Your task to perform on an android device: Search for macbook on newegg, select the first entry, add it to the cart, then select checkout. Image 0: 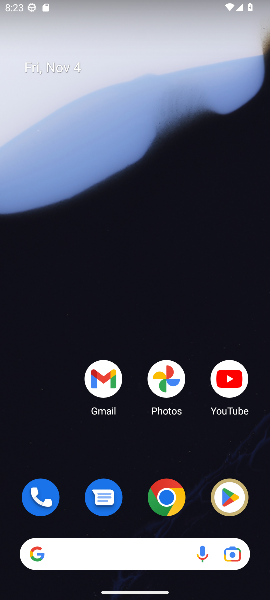
Step 0: click (168, 504)
Your task to perform on an android device: Search for macbook on newegg, select the first entry, add it to the cart, then select checkout. Image 1: 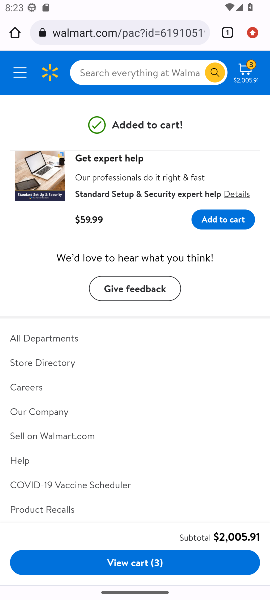
Step 1: click (95, 31)
Your task to perform on an android device: Search for macbook on newegg, select the first entry, add it to the cart, then select checkout. Image 2: 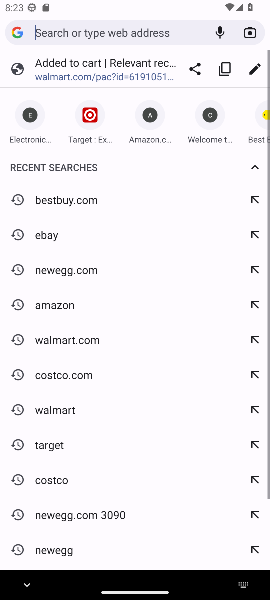
Step 2: click (62, 274)
Your task to perform on an android device: Search for macbook on newegg, select the first entry, add it to the cart, then select checkout. Image 3: 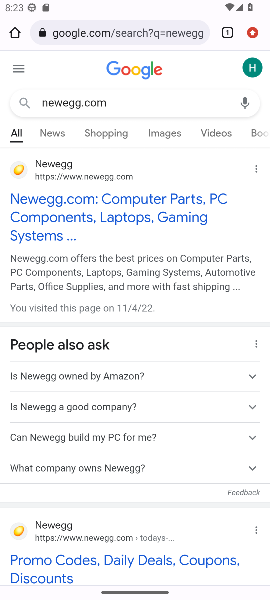
Step 3: click (81, 203)
Your task to perform on an android device: Search for macbook on newegg, select the first entry, add it to the cart, then select checkout. Image 4: 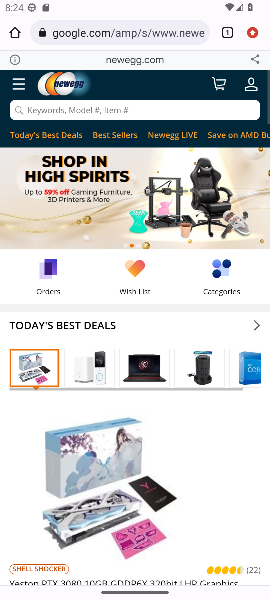
Step 4: click (94, 114)
Your task to perform on an android device: Search for macbook on newegg, select the first entry, add it to the cart, then select checkout. Image 5: 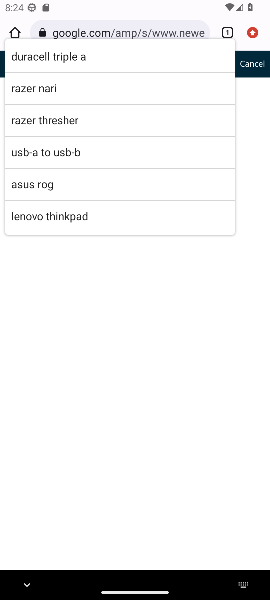
Step 5: click (153, 257)
Your task to perform on an android device: Search for macbook on newegg, select the first entry, add it to the cart, then select checkout. Image 6: 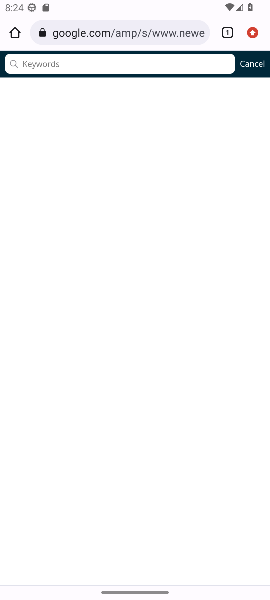
Step 6: click (37, 66)
Your task to perform on an android device: Search for macbook on newegg, select the first entry, add it to the cart, then select checkout. Image 7: 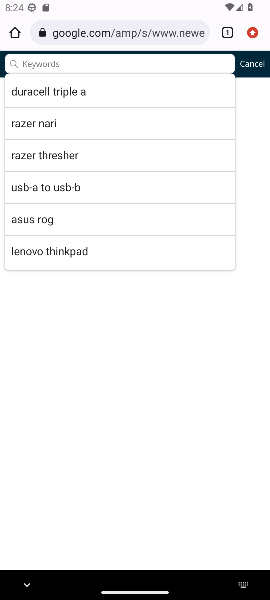
Step 7: type "macbook"
Your task to perform on an android device: Search for macbook on newegg, select the first entry, add it to the cart, then select checkout. Image 8: 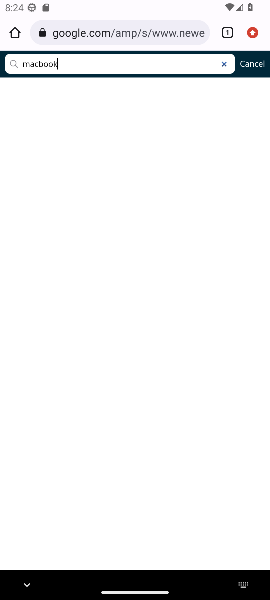
Step 8: click (13, 65)
Your task to perform on an android device: Search for macbook on newegg, select the first entry, add it to the cart, then select checkout. Image 9: 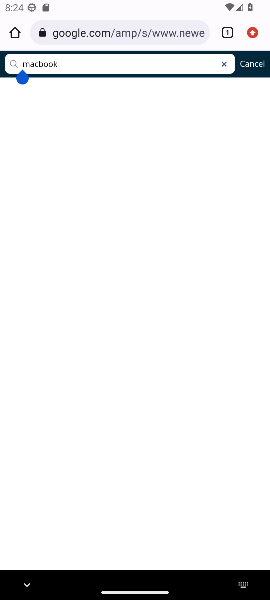
Step 9: click (251, 62)
Your task to perform on an android device: Search for macbook on newegg, select the first entry, add it to the cart, then select checkout. Image 10: 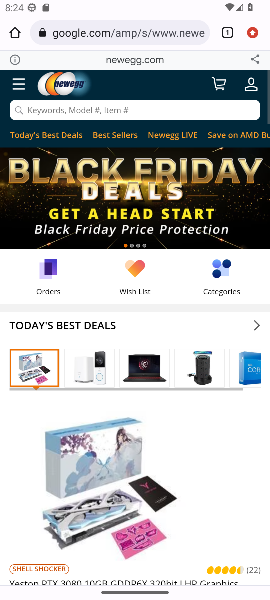
Step 10: click (221, 89)
Your task to perform on an android device: Search for macbook on newegg, select the first entry, add it to the cart, then select checkout. Image 11: 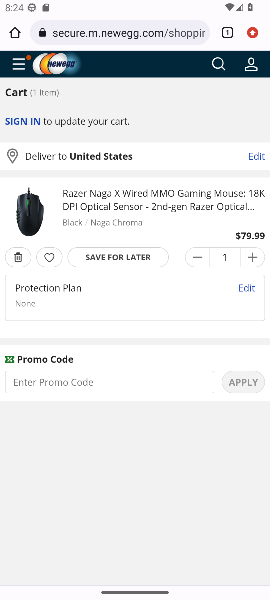
Step 11: click (215, 66)
Your task to perform on an android device: Search for macbook on newegg, select the first entry, add it to the cart, then select checkout. Image 12: 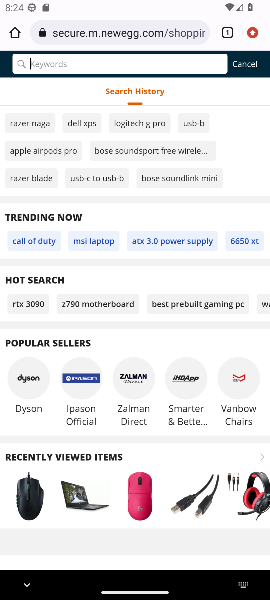
Step 12: type "macbook"
Your task to perform on an android device: Search for macbook on newegg, select the first entry, add it to the cart, then select checkout. Image 13: 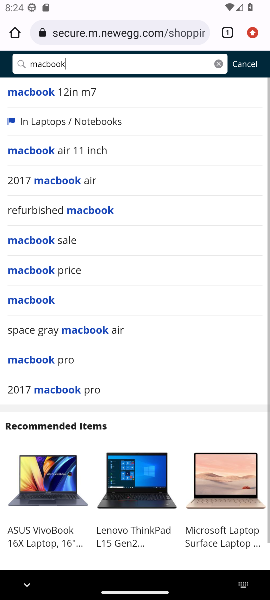
Step 13: click (49, 305)
Your task to perform on an android device: Search for macbook on newegg, select the first entry, add it to the cart, then select checkout. Image 14: 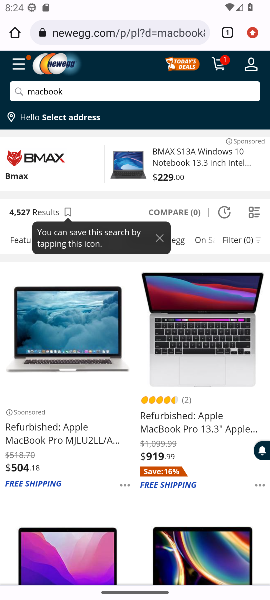
Step 14: click (67, 352)
Your task to perform on an android device: Search for macbook on newegg, select the first entry, add it to the cart, then select checkout. Image 15: 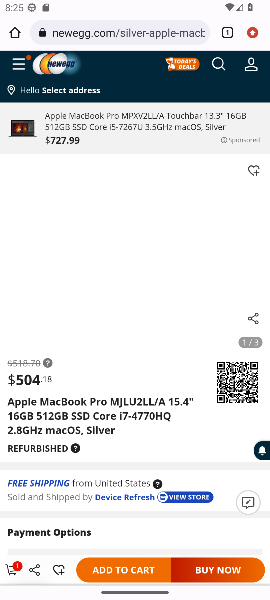
Step 15: click (123, 571)
Your task to perform on an android device: Search for macbook on newegg, select the first entry, add it to the cart, then select checkout. Image 16: 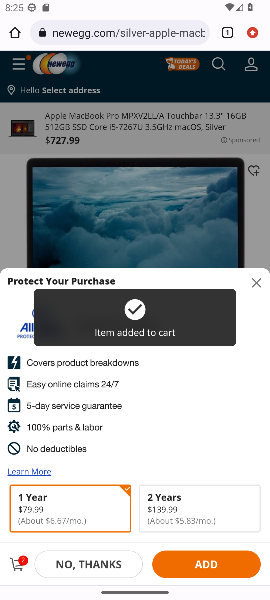
Step 16: click (17, 567)
Your task to perform on an android device: Search for macbook on newegg, select the first entry, add it to the cart, then select checkout. Image 17: 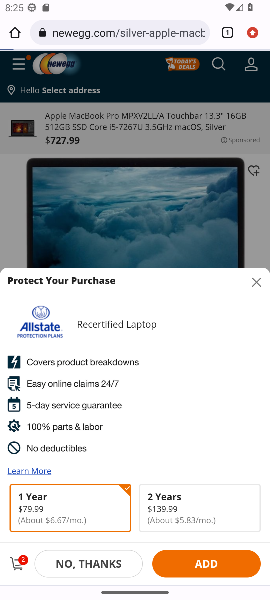
Step 17: click (17, 567)
Your task to perform on an android device: Search for macbook on newegg, select the first entry, add it to the cart, then select checkout. Image 18: 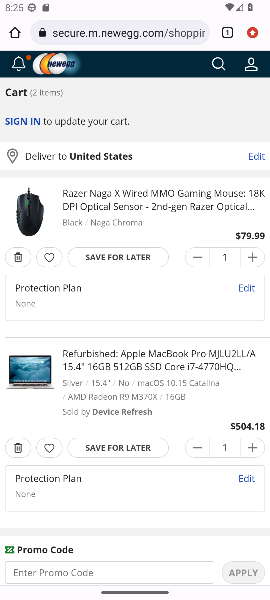
Step 18: click (142, 542)
Your task to perform on an android device: Search for macbook on newegg, select the first entry, add it to the cart, then select checkout. Image 19: 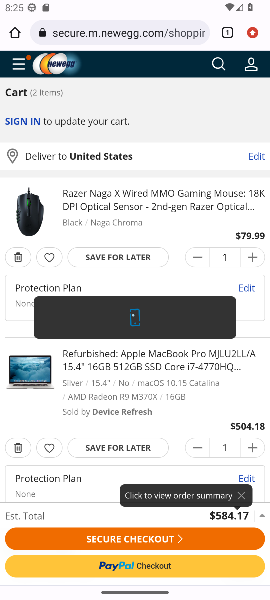
Step 19: click (142, 542)
Your task to perform on an android device: Search for macbook on newegg, select the first entry, add it to the cart, then select checkout. Image 20: 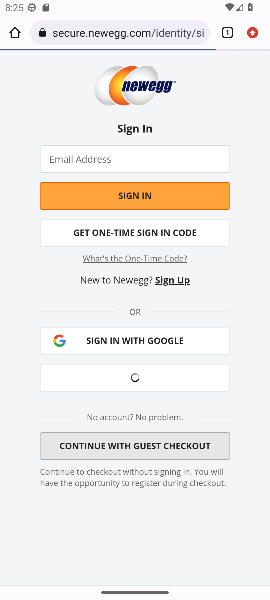
Step 20: click (142, 542)
Your task to perform on an android device: Search for macbook on newegg, select the first entry, add it to the cart, then select checkout. Image 21: 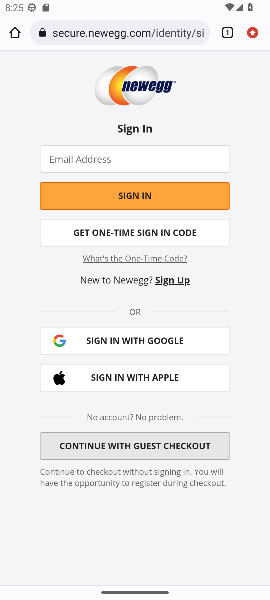
Step 21: task complete